Your task to perform on an android device: Open CNN.com Image 0: 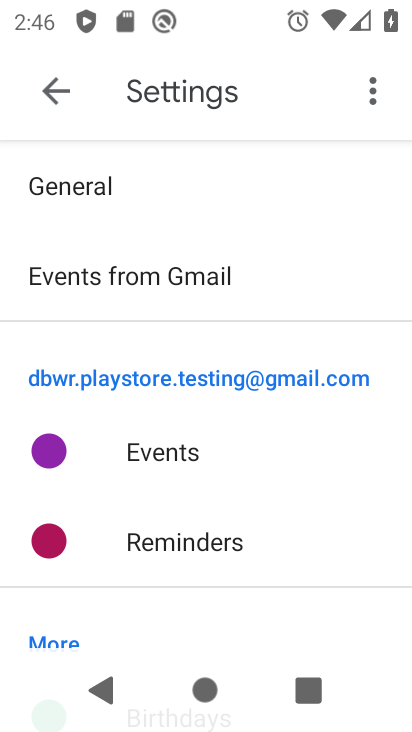
Step 0: press home button
Your task to perform on an android device: Open CNN.com Image 1: 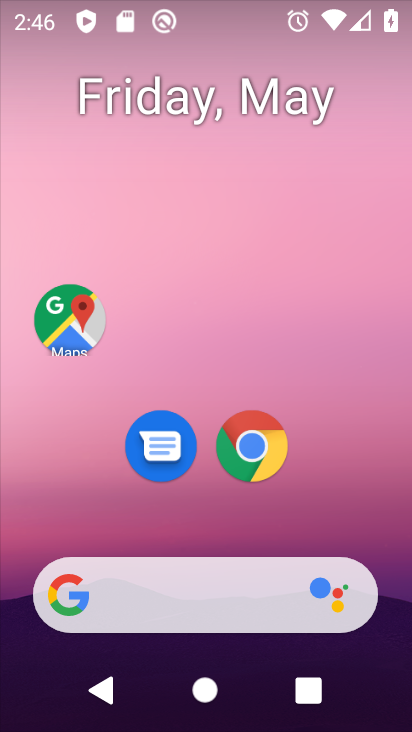
Step 1: click (268, 447)
Your task to perform on an android device: Open CNN.com Image 2: 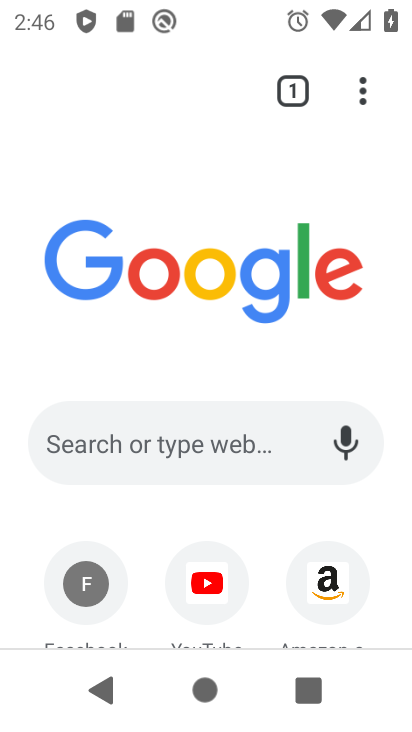
Step 2: click (176, 440)
Your task to perform on an android device: Open CNN.com Image 3: 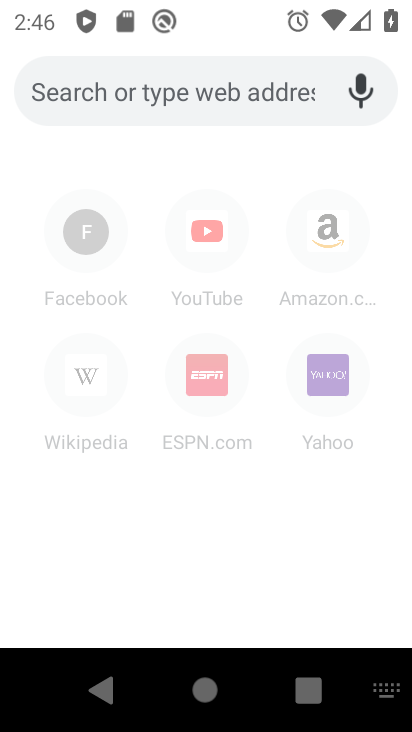
Step 3: type "cnn.com"
Your task to perform on an android device: Open CNN.com Image 4: 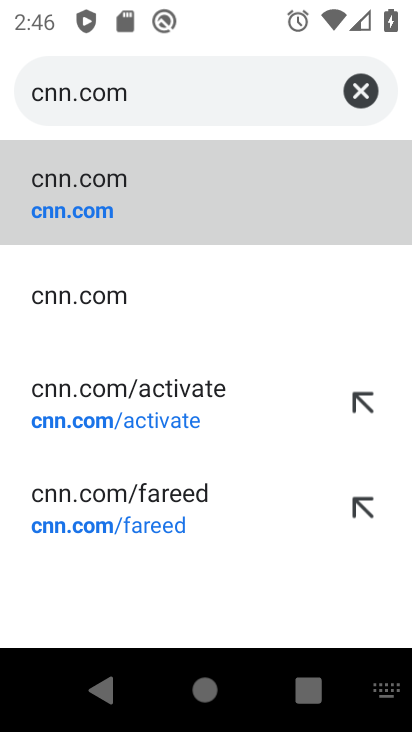
Step 4: click (98, 212)
Your task to perform on an android device: Open CNN.com Image 5: 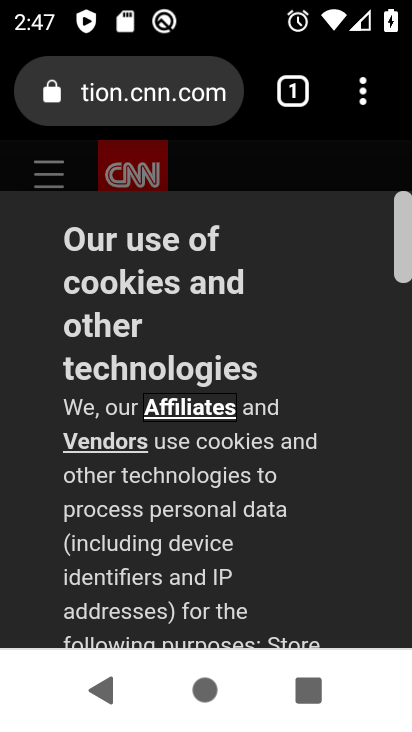
Step 5: task complete